Your task to perform on an android device: turn off picture-in-picture Image 0: 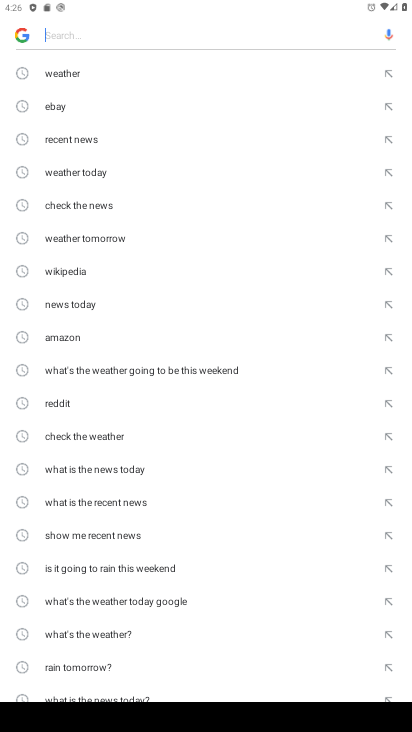
Step 0: press home button
Your task to perform on an android device: turn off picture-in-picture Image 1: 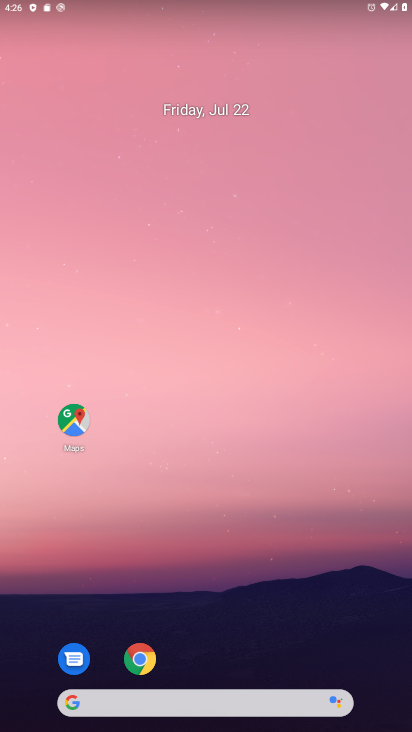
Step 1: click (136, 652)
Your task to perform on an android device: turn off picture-in-picture Image 2: 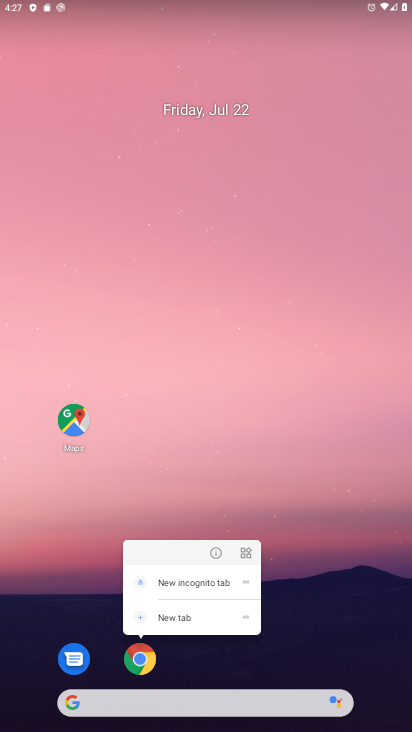
Step 2: click (214, 548)
Your task to perform on an android device: turn off picture-in-picture Image 3: 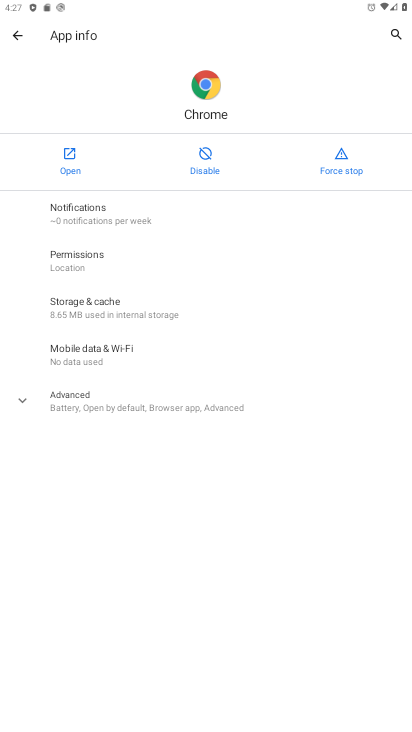
Step 3: click (21, 399)
Your task to perform on an android device: turn off picture-in-picture Image 4: 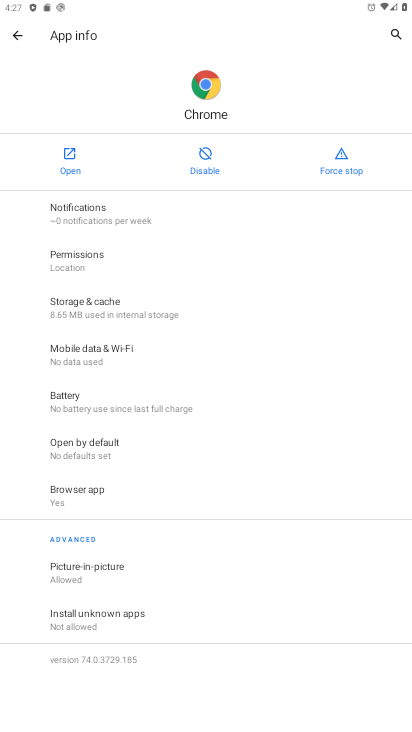
Step 4: click (99, 575)
Your task to perform on an android device: turn off picture-in-picture Image 5: 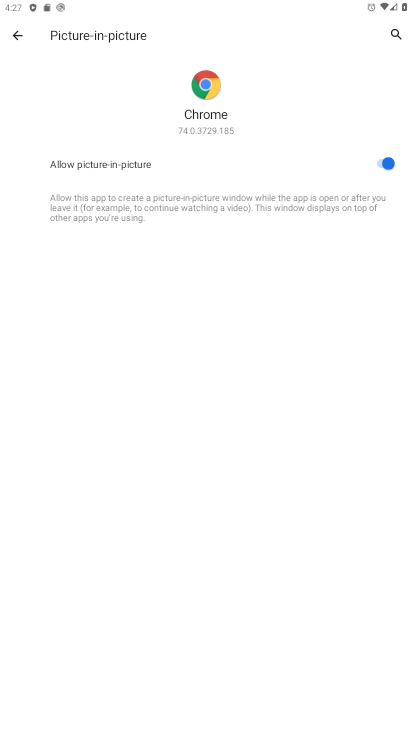
Step 5: click (383, 157)
Your task to perform on an android device: turn off picture-in-picture Image 6: 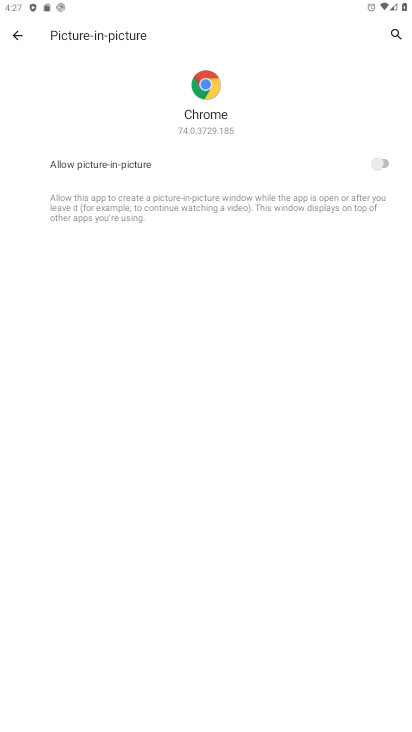
Step 6: task complete